Your task to perform on an android device: What is the recent news? Image 0: 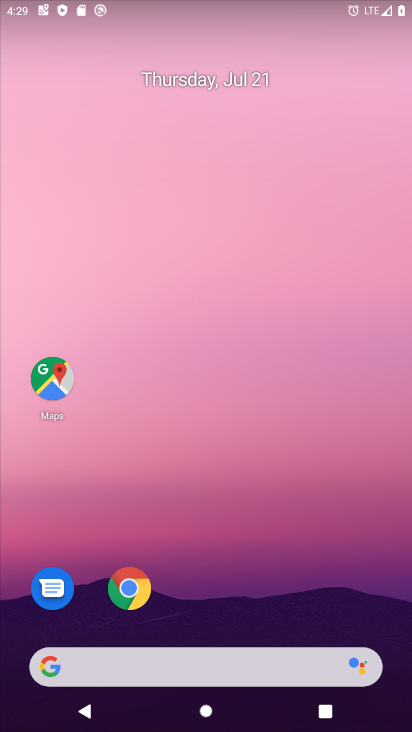
Step 0: drag from (250, 571) to (242, 30)
Your task to perform on an android device: What is the recent news? Image 1: 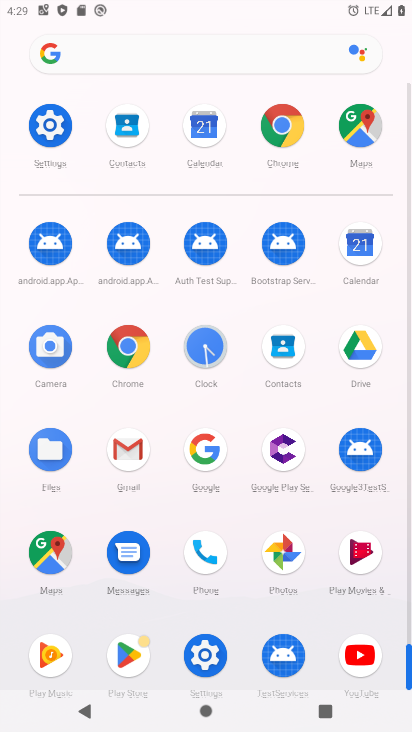
Step 1: click (125, 336)
Your task to perform on an android device: What is the recent news? Image 2: 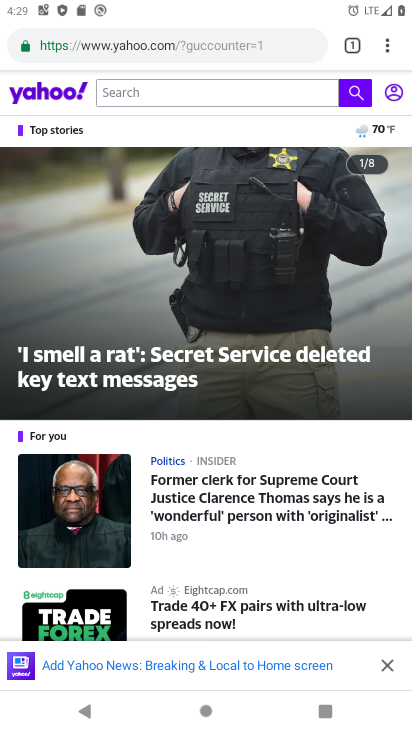
Step 2: click (231, 42)
Your task to perform on an android device: What is the recent news? Image 3: 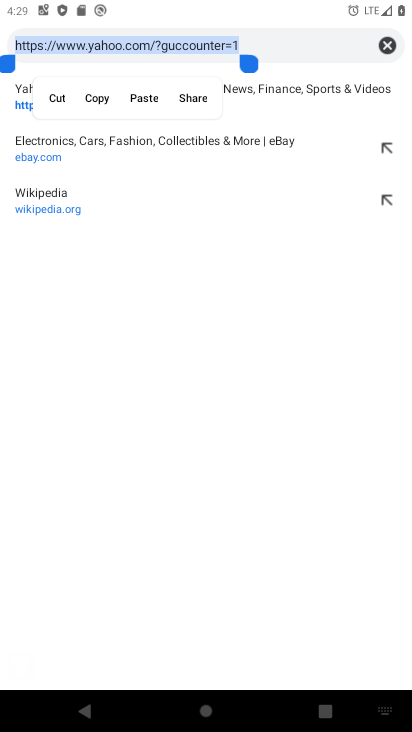
Step 3: click (388, 37)
Your task to perform on an android device: What is the recent news? Image 4: 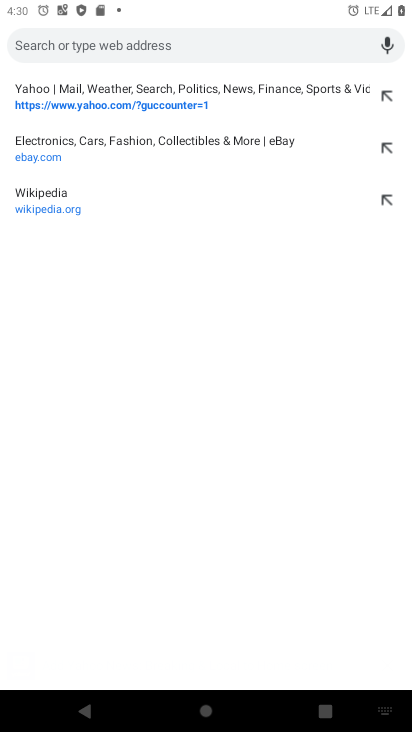
Step 4: type "What is the recent news?"
Your task to perform on an android device: What is the recent news? Image 5: 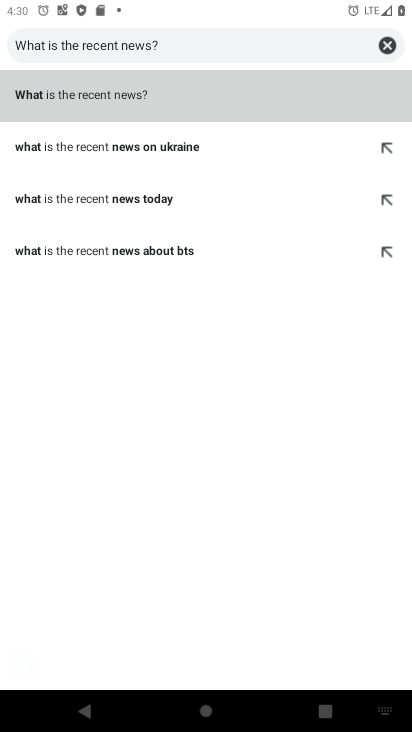
Step 5: click (66, 96)
Your task to perform on an android device: What is the recent news? Image 6: 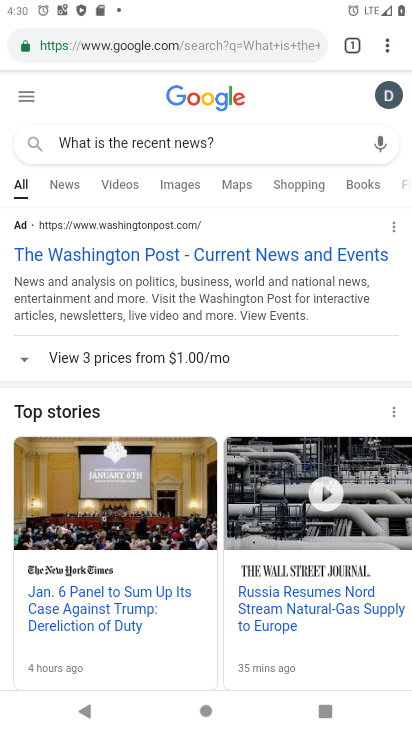
Step 6: click (70, 182)
Your task to perform on an android device: What is the recent news? Image 7: 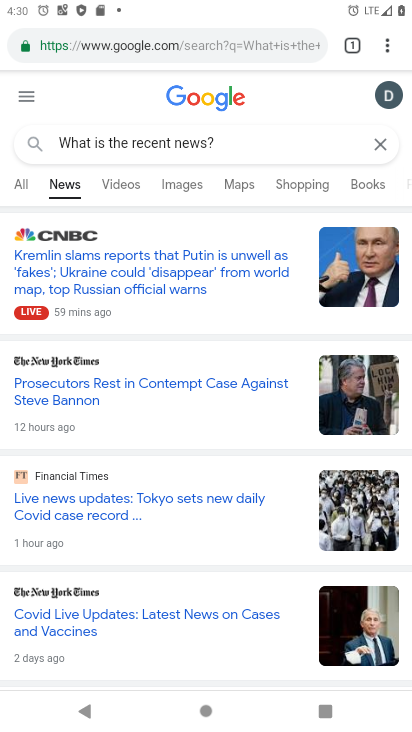
Step 7: task complete